Your task to perform on an android device: Clear all items from cart on walmart.com. Add razer blade to the cart on walmart.com, then select checkout. Image 0: 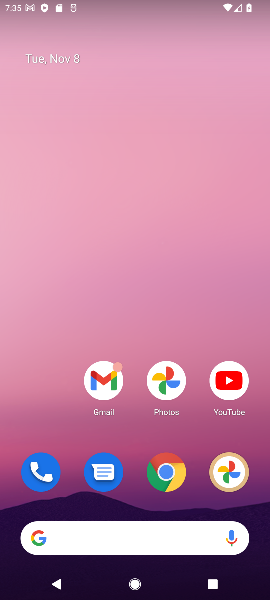
Step 0: press home button
Your task to perform on an android device: Clear all items from cart on walmart.com. Add razer blade to the cart on walmart.com, then select checkout. Image 1: 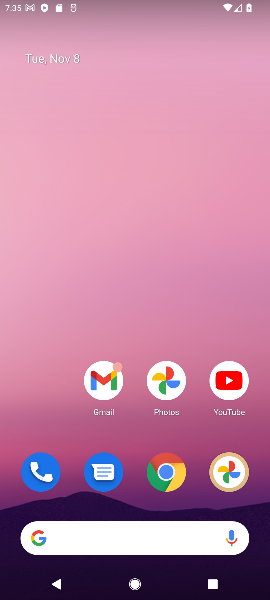
Step 1: click (171, 470)
Your task to perform on an android device: Clear all items from cart on walmart.com. Add razer blade to the cart on walmart.com, then select checkout. Image 2: 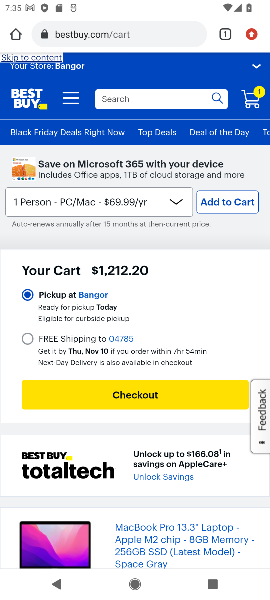
Step 2: click (113, 26)
Your task to perform on an android device: Clear all items from cart on walmart.com. Add razer blade to the cart on walmart.com, then select checkout. Image 3: 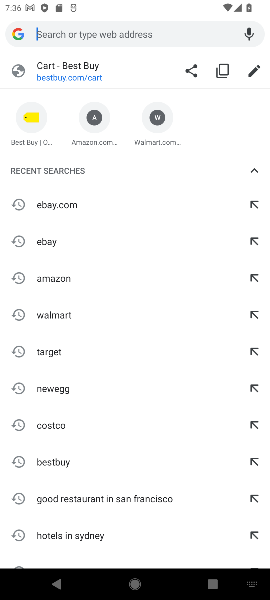
Step 3: click (47, 312)
Your task to perform on an android device: Clear all items from cart on walmart.com. Add razer blade to the cart on walmart.com, then select checkout. Image 4: 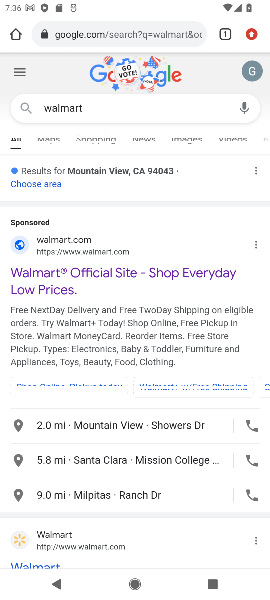
Step 4: click (100, 271)
Your task to perform on an android device: Clear all items from cart on walmart.com. Add razer blade to the cart on walmart.com, then select checkout. Image 5: 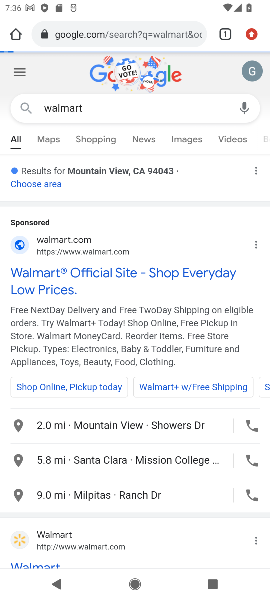
Step 5: click (93, 269)
Your task to perform on an android device: Clear all items from cart on walmart.com. Add razer blade to the cart on walmart.com, then select checkout. Image 6: 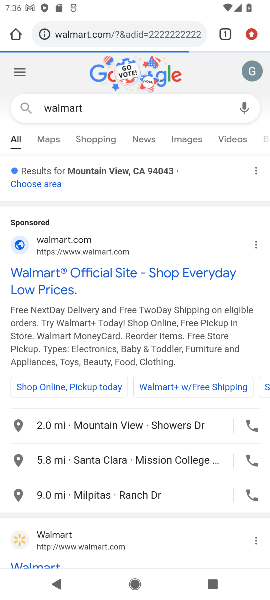
Step 6: drag from (82, 471) to (187, 165)
Your task to perform on an android device: Clear all items from cart on walmart.com. Add razer blade to the cart on walmart.com, then select checkout. Image 7: 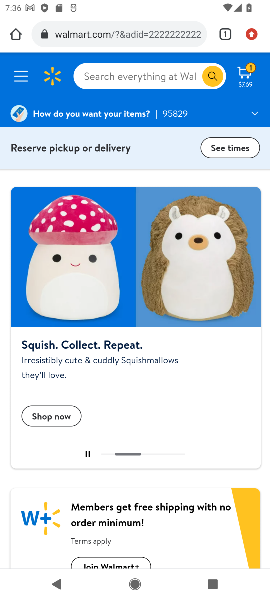
Step 7: click (249, 70)
Your task to perform on an android device: Clear all items from cart on walmart.com. Add razer blade to the cart on walmart.com, then select checkout. Image 8: 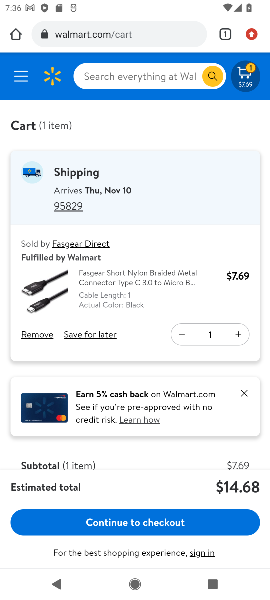
Step 8: click (37, 333)
Your task to perform on an android device: Clear all items from cart on walmart.com. Add razer blade to the cart on walmart.com, then select checkout. Image 9: 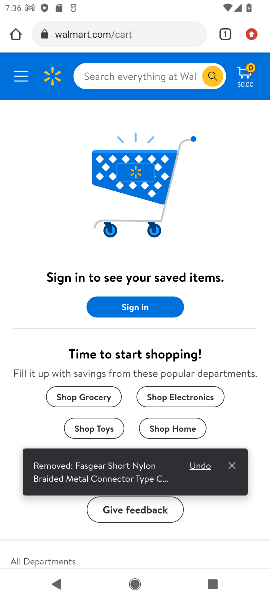
Step 9: click (132, 75)
Your task to perform on an android device: Clear all items from cart on walmart.com. Add razer blade to the cart on walmart.com, then select checkout. Image 10: 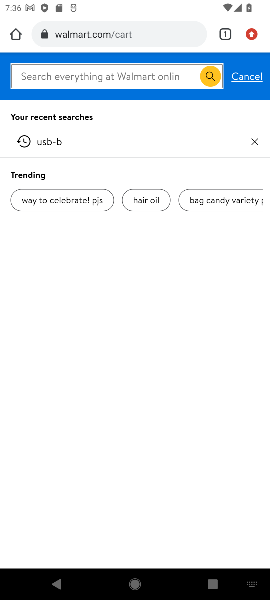
Step 10: type "razer blade"
Your task to perform on an android device: Clear all items from cart on walmart.com. Add razer blade to the cart on walmart.com, then select checkout. Image 11: 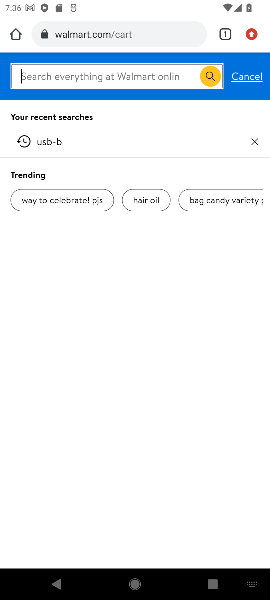
Step 11: press enter
Your task to perform on an android device: Clear all items from cart on walmart.com. Add razer blade to the cart on walmart.com, then select checkout. Image 12: 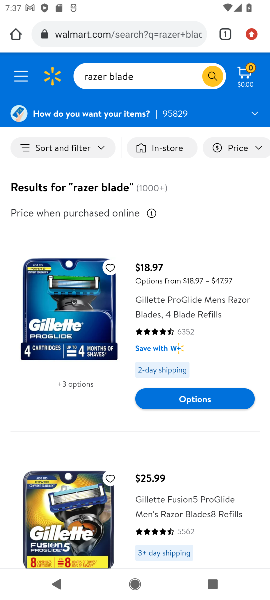
Step 12: task complete